Your task to perform on an android device: see tabs open on other devices in the chrome app Image 0: 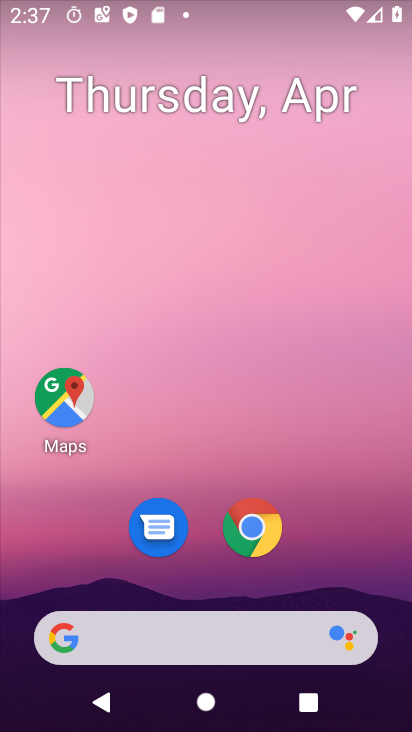
Step 0: click (254, 519)
Your task to perform on an android device: see tabs open on other devices in the chrome app Image 1: 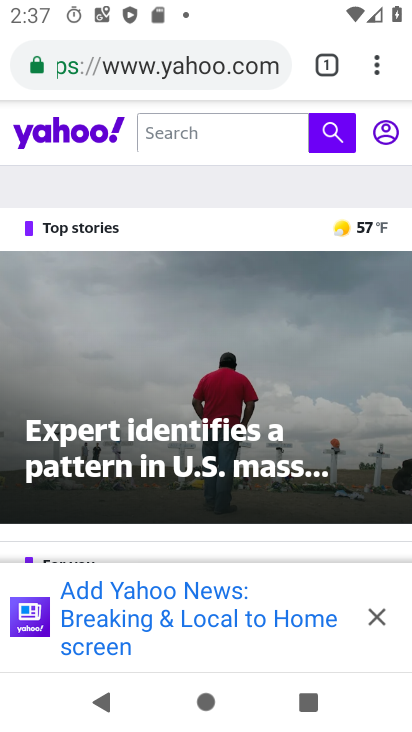
Step 1: task complete